Your task to perform on an android device: turn off sleep mode Image 0: 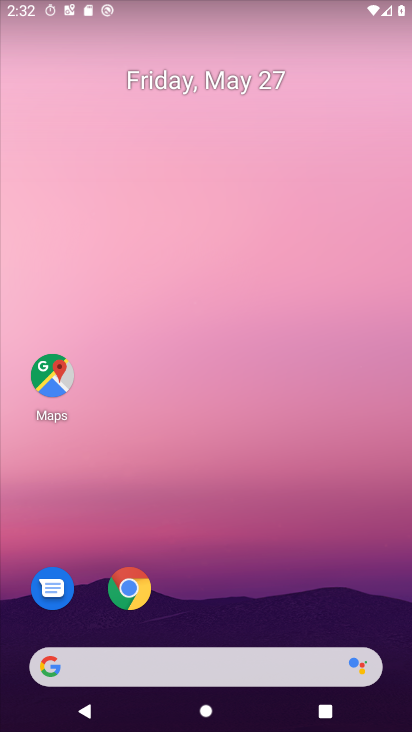
Step 0: drag from (242, 540) to (236, 39)
Your task to perform on an android device: turn off sleep mode Image 1: 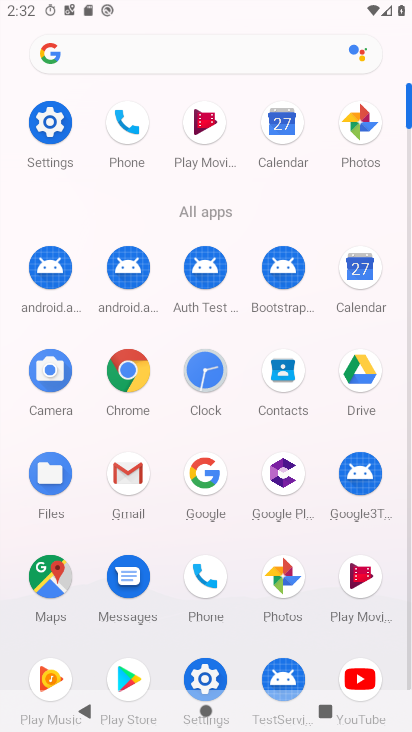
Step 1: click (54, 125)
Your task to perform on an android device: turn off sleep mode Image 2: 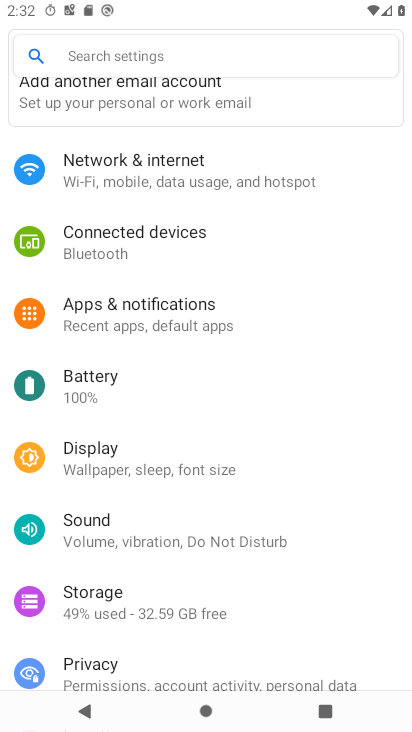
Step 2: click (171, 453)
Your task to perform on an android device: turn off sleep mode Image 3: 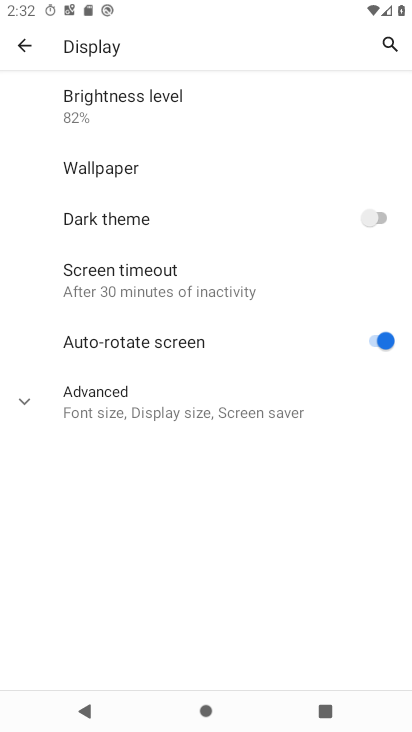
Step 3: click (164, 409)
Your task to perform on an android device: turn off sleep mode Image 4: 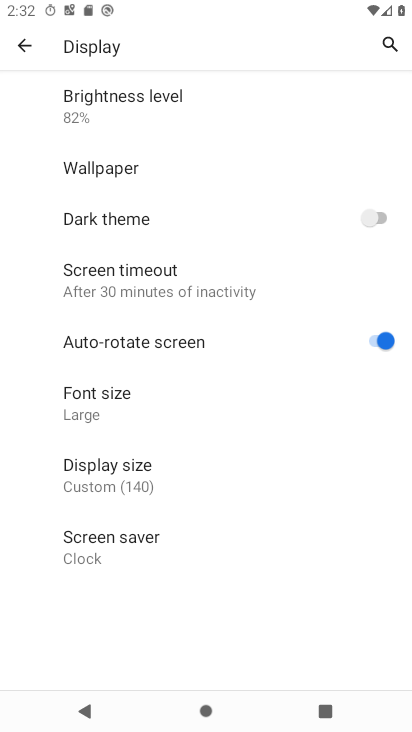
Step 4: task complete